Your task to perform on an android device: Open Youtube and go to the subscriptions tab Image 0: 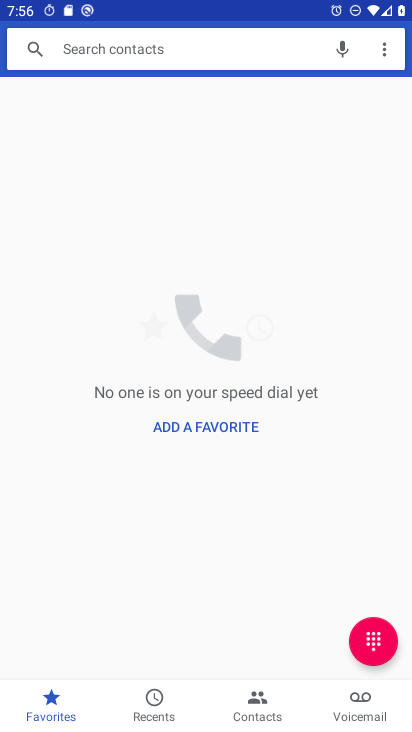
Step 0: press home button
Your task to perform on an android device: Open Youtube and go to the subscriptions tab Image 1: 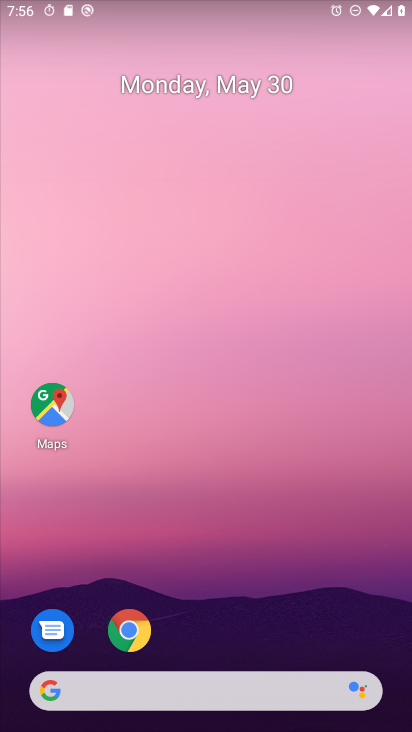
Step 1: drag from (375, 635) to (320, 75)
Your task to perform on an android device: Open Youtube and go to the subscriptions tab Image 2: 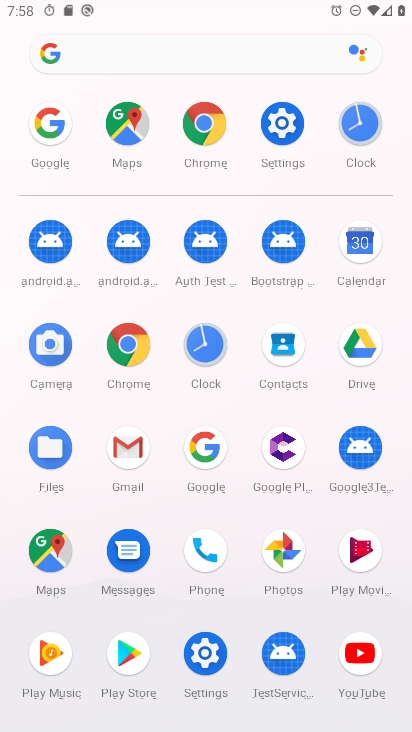
Step 2: click (348, 682)
Your task to perform on an android device: Open Youtube and go to the subscriptions tab Image 3: 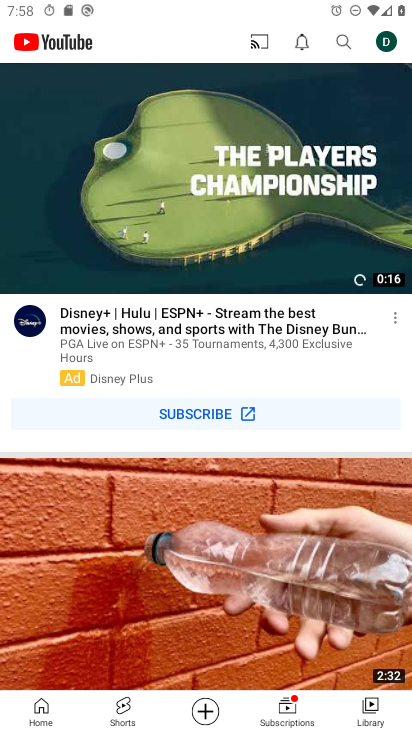
Step 3: click (284, 710)
Your task to perform on an android device: Open Youtube and go to the subscriptions tab Image 4: 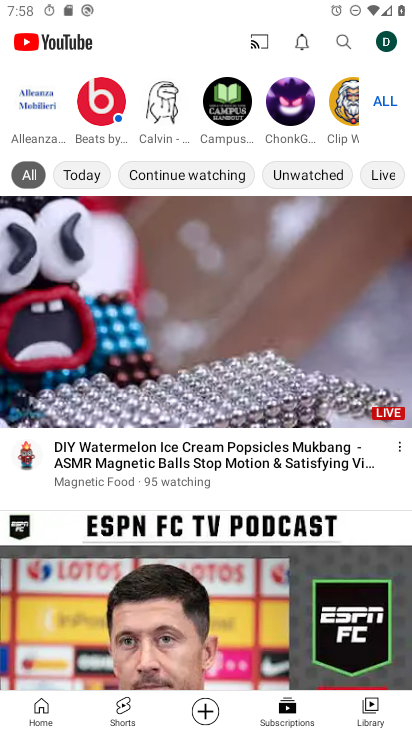
Step 4: task complete